Your task to perform on an android device: Go to calendar. Show me events next week Image 0: 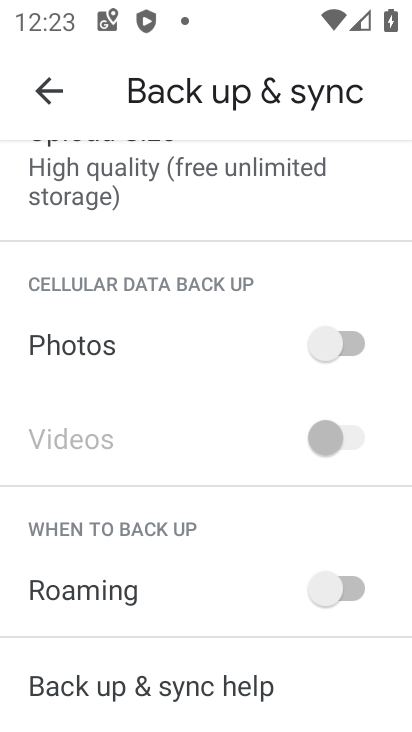
Step 0: press home button
Your task to perform on an android device: Go to calendar. Show me events next week Image 1: 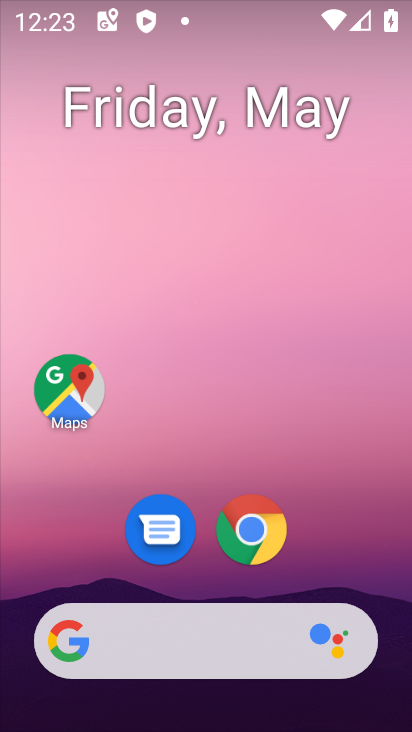
Step 1: drag from (317, 531) to (83, 131)
Your task to perform on an android device: Go to calendar. Show me events next week Image 2: 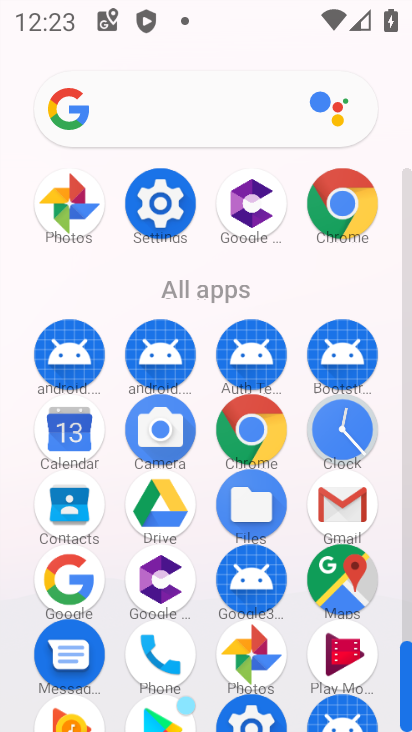
Step 2: click (55, 431)
Your task to perform on an android device: Go to calendar. Show me events next week Image 3: 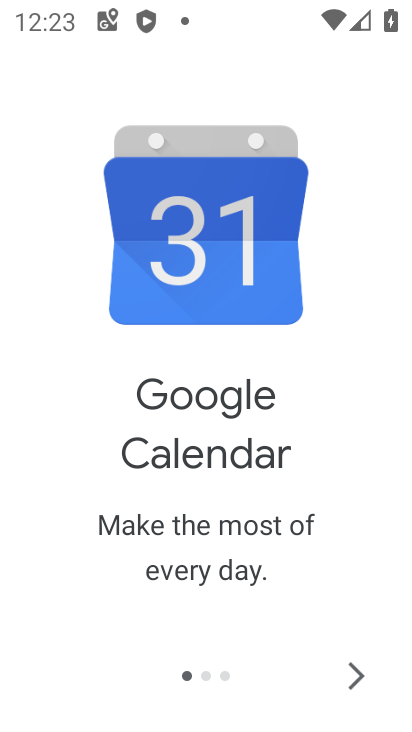
Step 3: click (364, 679)
Your task to perform on an android device: Go to calendar. Show me events next week Image 4: 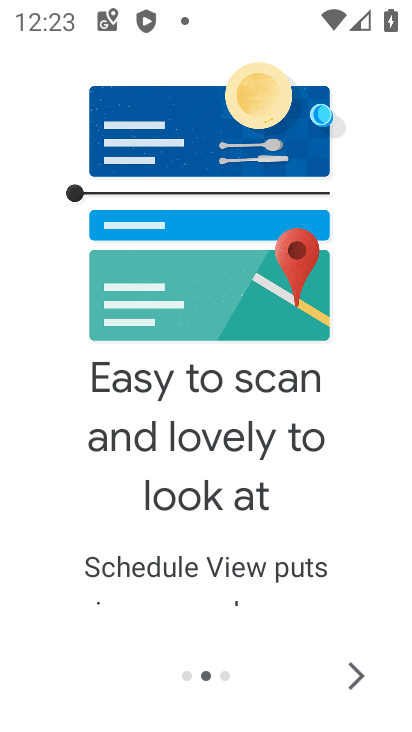
Step 4: click (347, 655)
Your task to perform on an android device: Go to calendar. Show me events next week Image 5: 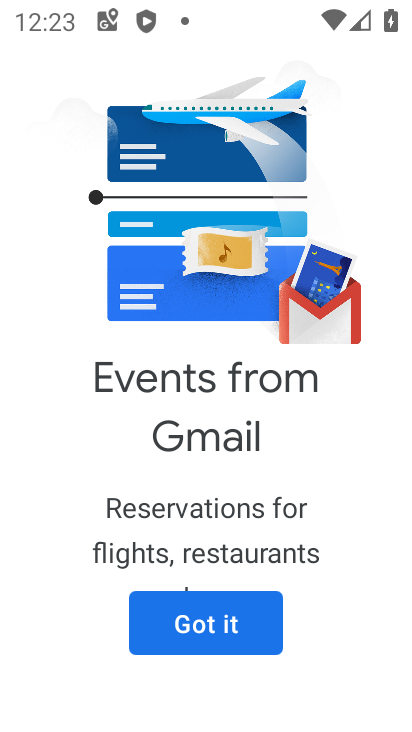
Step 5: click (217, 649)
Your task to perform on an android device: Go to calendar. Show me events next week Image 6: 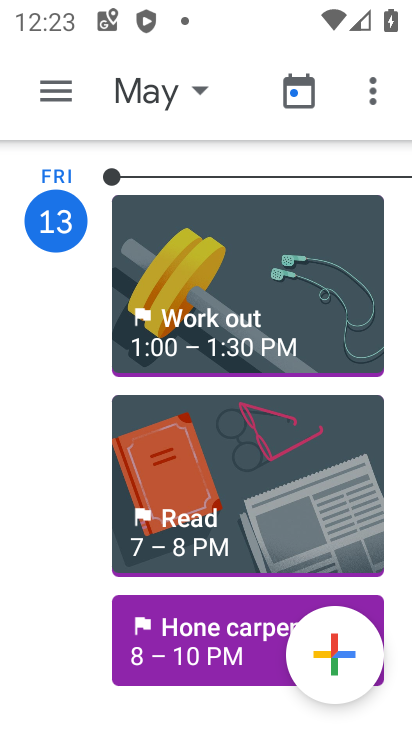
Step 6: click (61, 104)
Your task to perform on an android device: Go to calendar. Show me events next week Image 7: 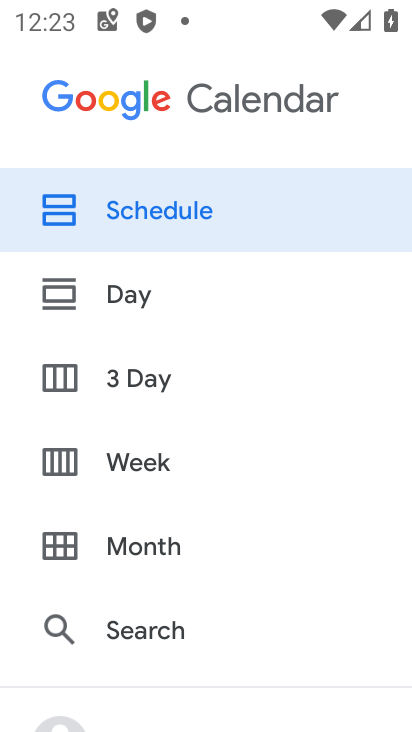
Step 7: click (113, 462)
Your task to perform on an android device: Go to calendar. Show me events next week Image 8: 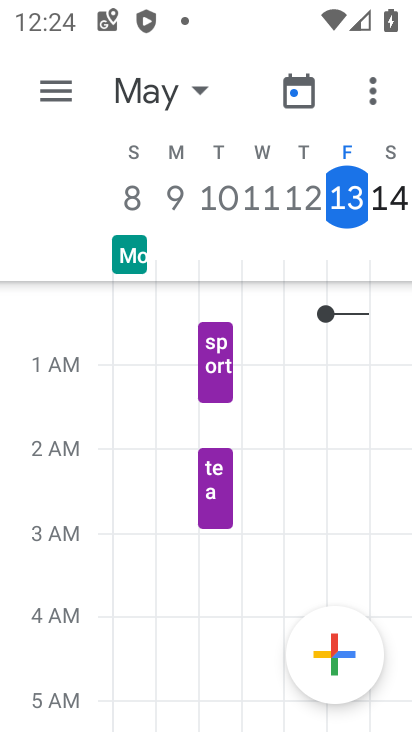
Step 8: drag from (266, 390) to (220, 343)
Your task to perform on an android device: Go to calendar. Show me events next week Image 9: 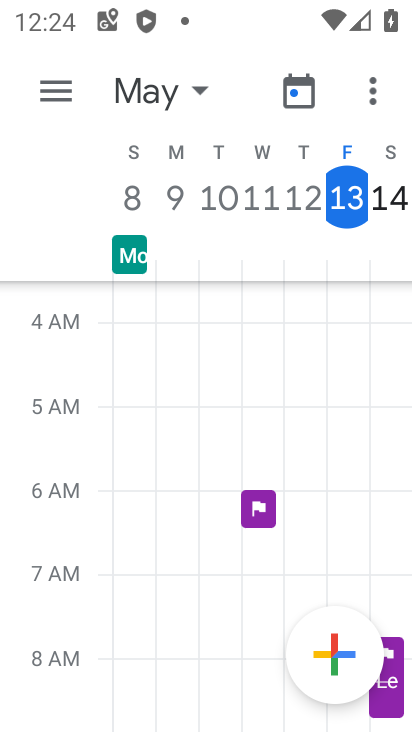
Step 9: click (46, 100)
Your task to perform on an android device: Go to calendar. Show me events next week Image 10: 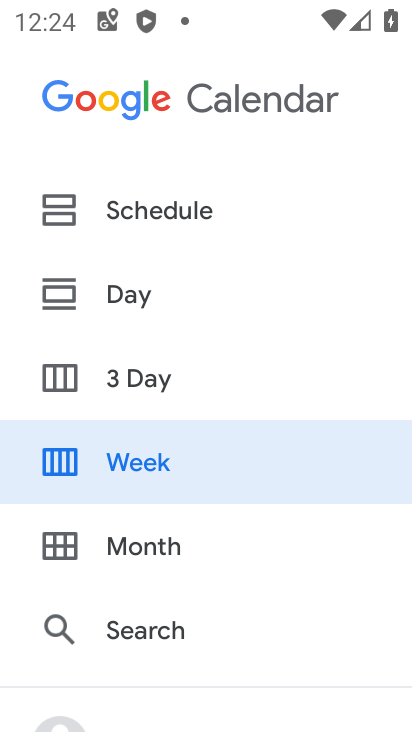
Step 10: task complete